Your task to perform on an android device: Toggle the flashlight Image 0: 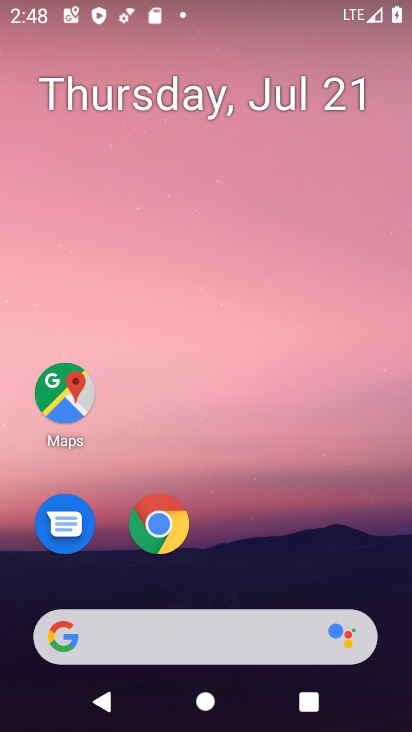
Step 0: drag from (264, 538) to (312, 21)
Your task to perform on an android device: Toggle the flashlight Image 1: 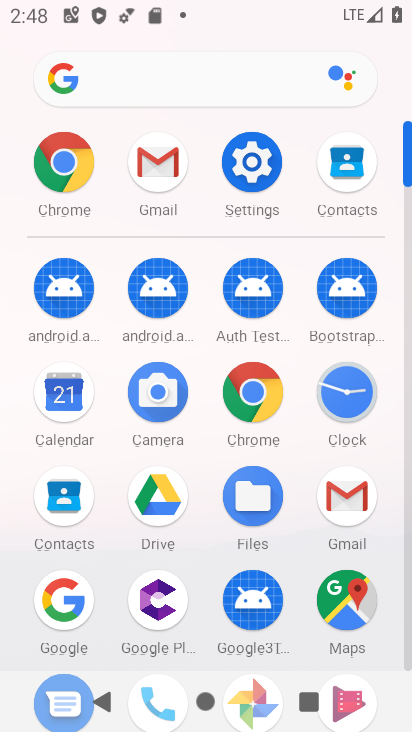
Step 1: click (267, 151)
Your task to perform on an android device: Toggle the flashlight Image 2: 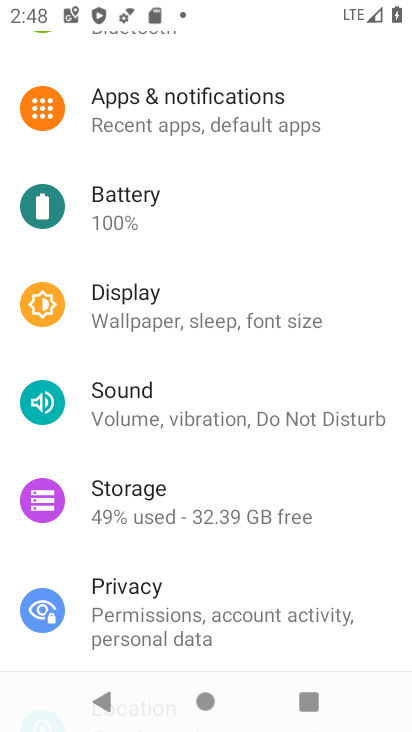
Step 2: drag from (266, 207) to (277, 567)
Your task to perform on an android device: Toggle the flashlight Image 3: 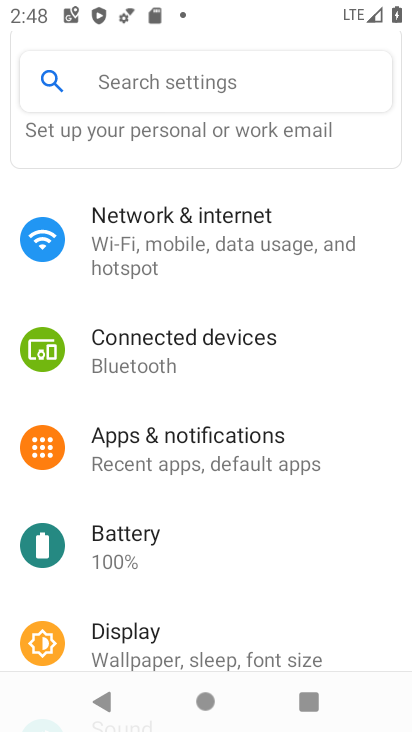
Step 3: drag from (238, 198) to (226, 556)
Your task to perform on an android device: Toggle the flashlight Image 4: 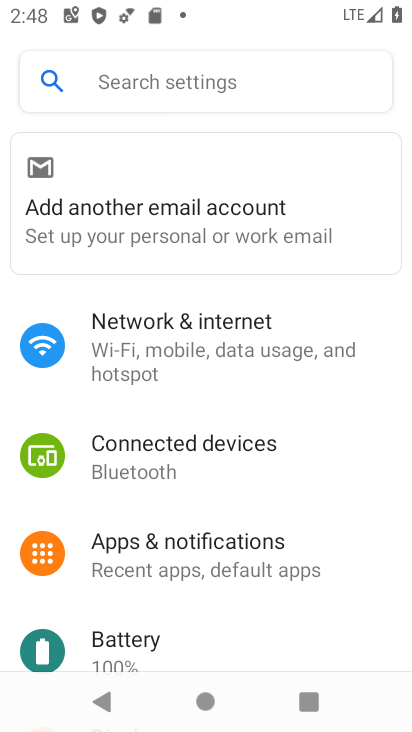
Step 4: click (267, 65)
Your task to perform on an android device: Toggle the flashlight Image 5: 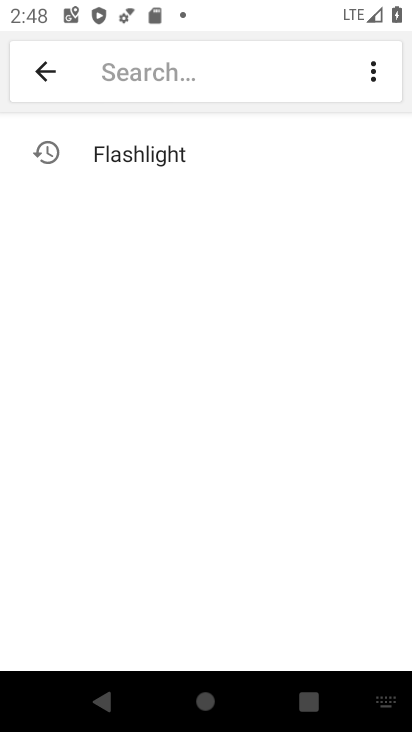
Step 5: click (136, 151)
Your task to perform on an android device: Toggle the flashlight Image 6: 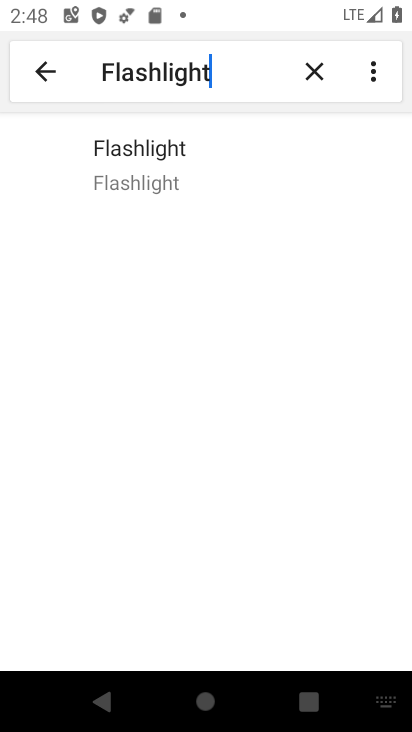
Step 6: click (138, 162)
Your task to perform on an android device: Toggle the flashlight Image 7: 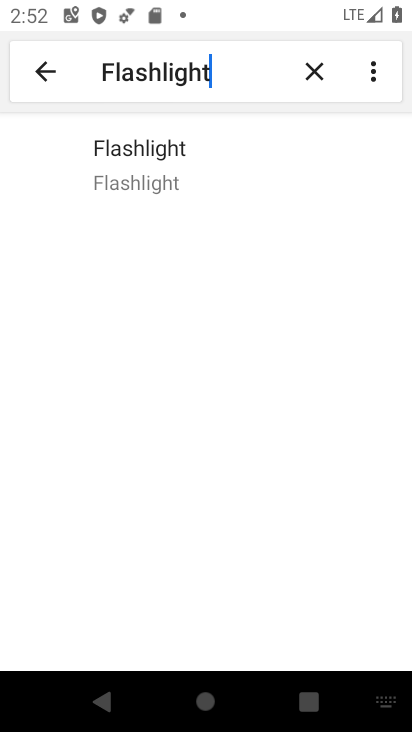
Step 7: task complete